Your task to perform on an android device: set the stopwatch Image 0: 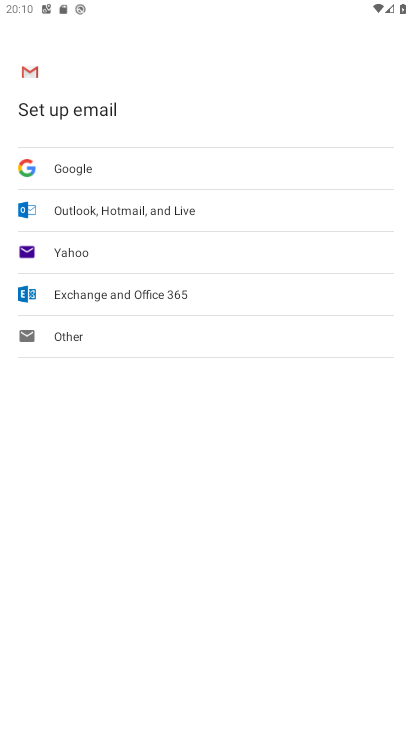
Step 0: press home button
Your task to perform on an android device: set the stopwatch Image 1: 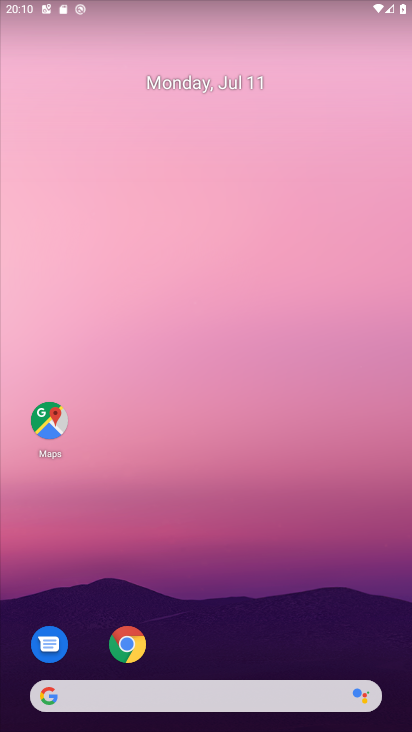
Step 1: drag from (264, 636) to (238, 177)
Your task to perform on an android device: set the stopwatch Image 2: 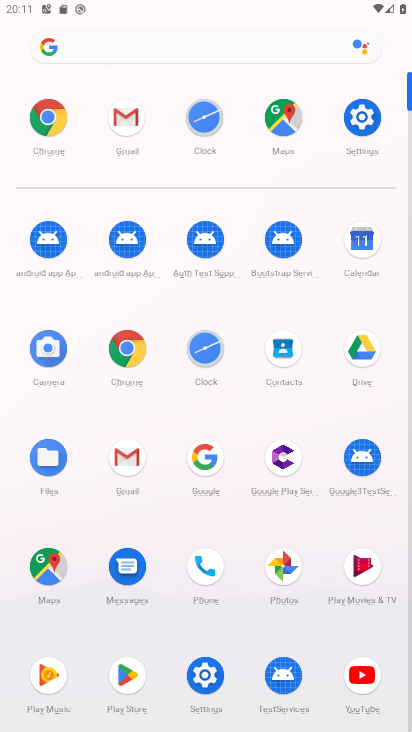
Step 2: click (209, 340)
Your task to perform on an android device: set the stopwatch Image 3: 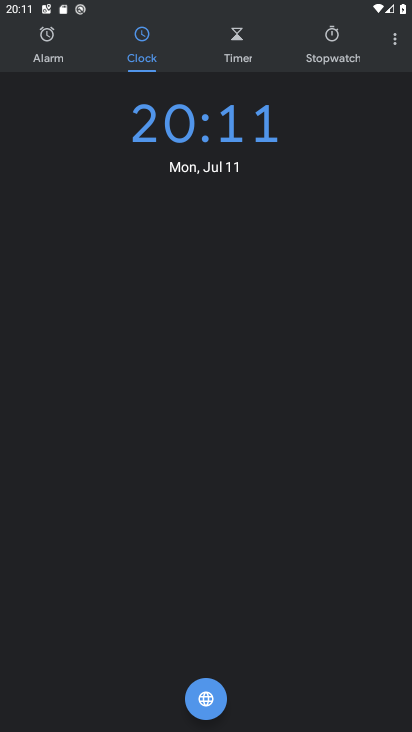
Step 3: click (397, 52)
Your task to perform on an android device: set the stopwatch Image 4: 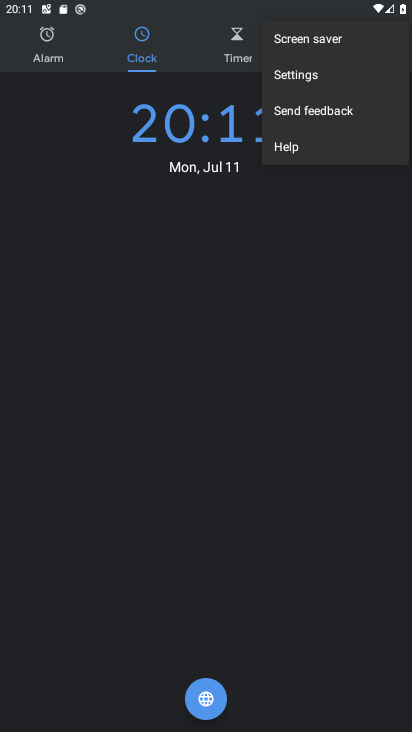
Step 4: click (134, 163)
Your task to perform on an android device: set the stopwatch Image 5: 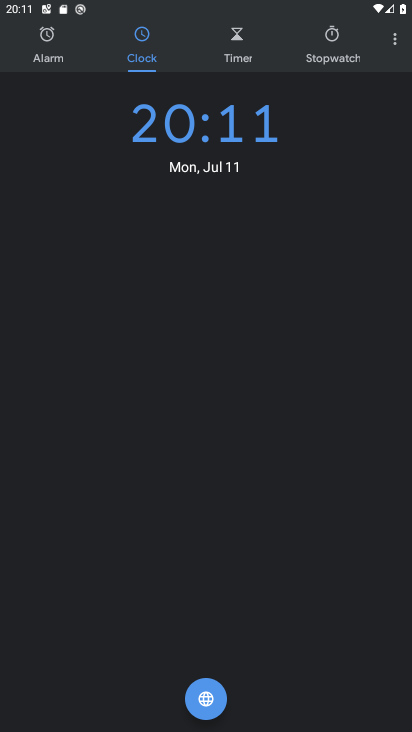
Step 5: click (322, 50)
Your task to perform on an android device: set the stopwatch Image 6: 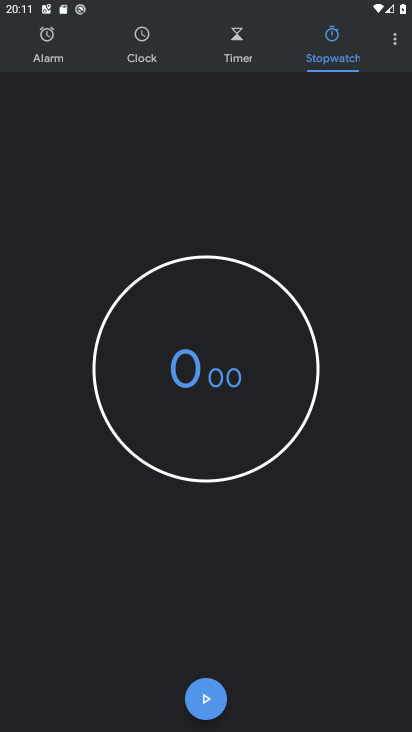
Step 6: task complete